Your task to perform on an android device: What is the news today? Image 0: 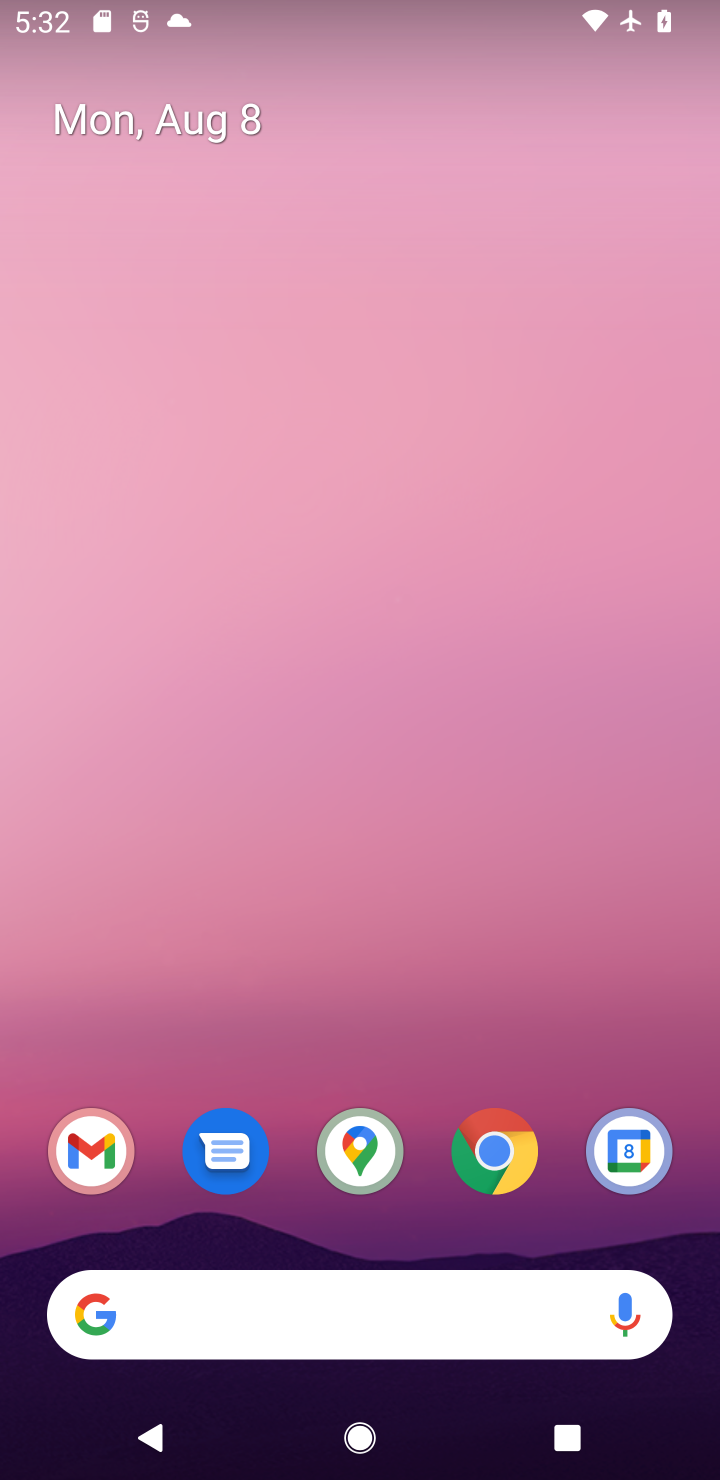
Step 0: drag from (374, 920) to (358, 293)
Your task to perform on an android device: What is the news today? Image 1: 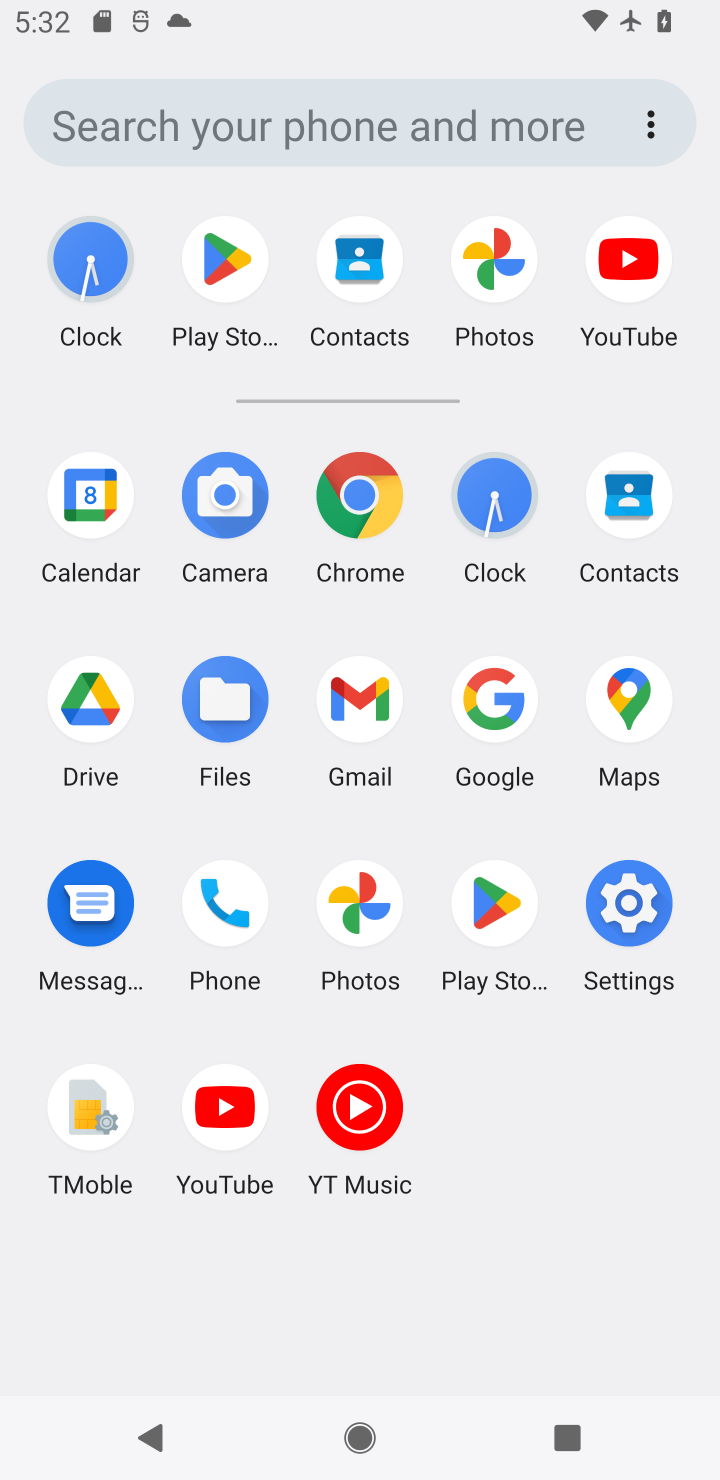
Step 1: click (478, 686)
Your task to perform on an android device: What is the news today? Image 2: 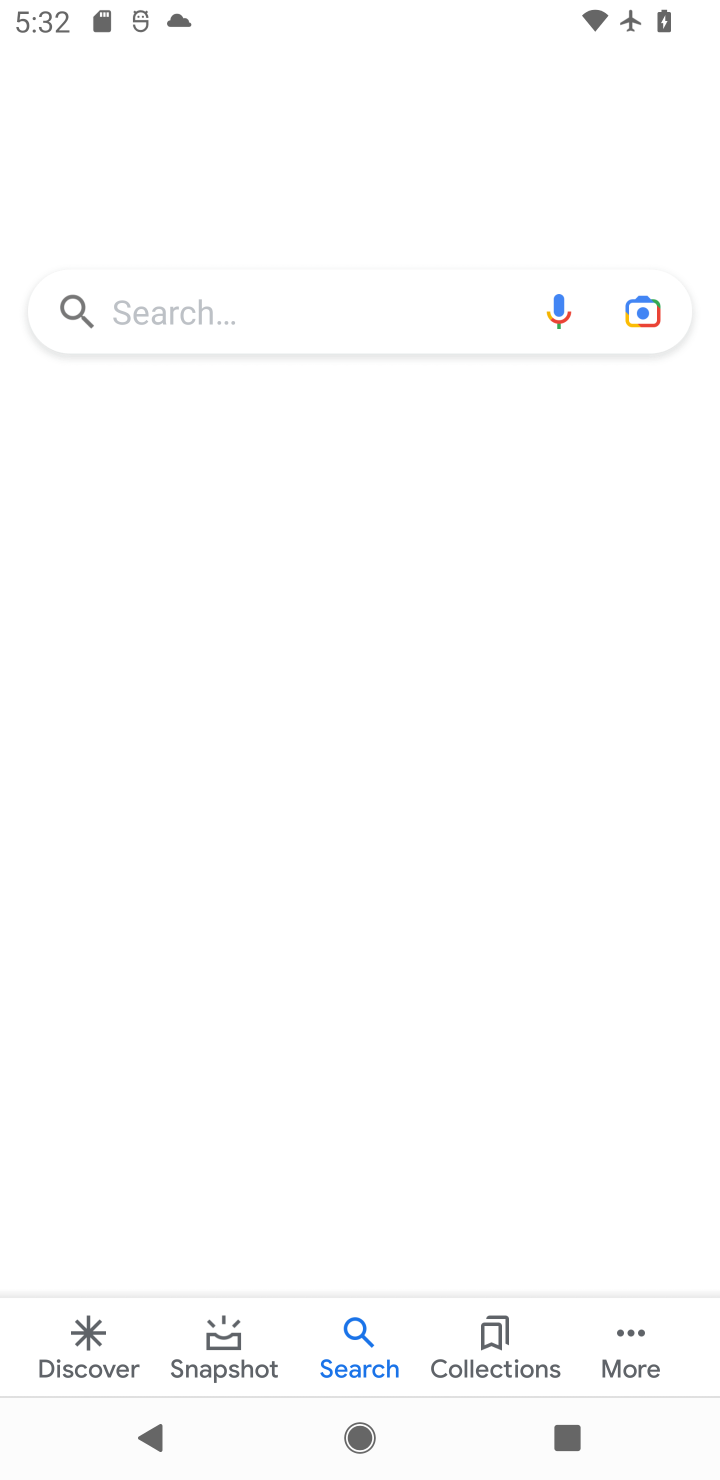
Step 2: click (217, 336)
Your task to perform on an android device: What is the news today? Image 3: 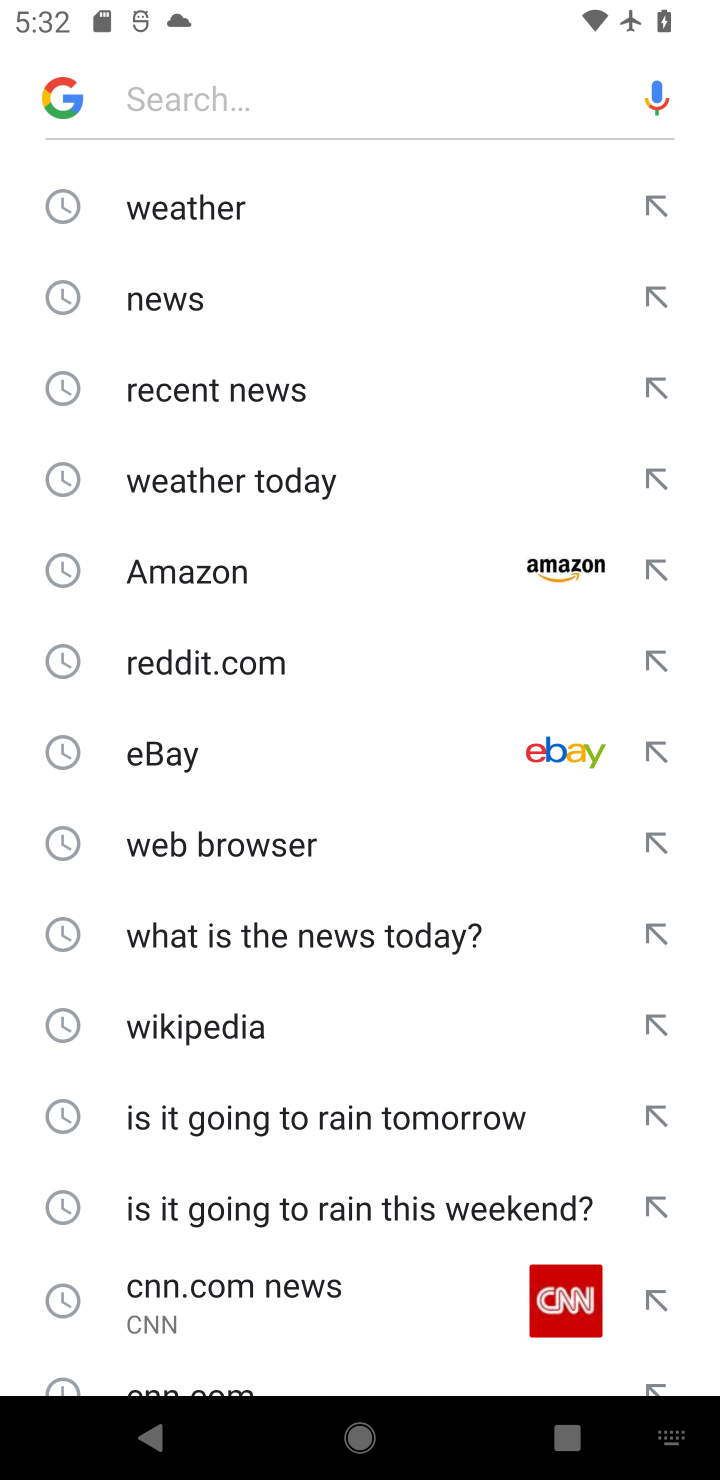
Step 3: click (209, 276)
Your task to perform on an android device: What is the news today? Image 4: 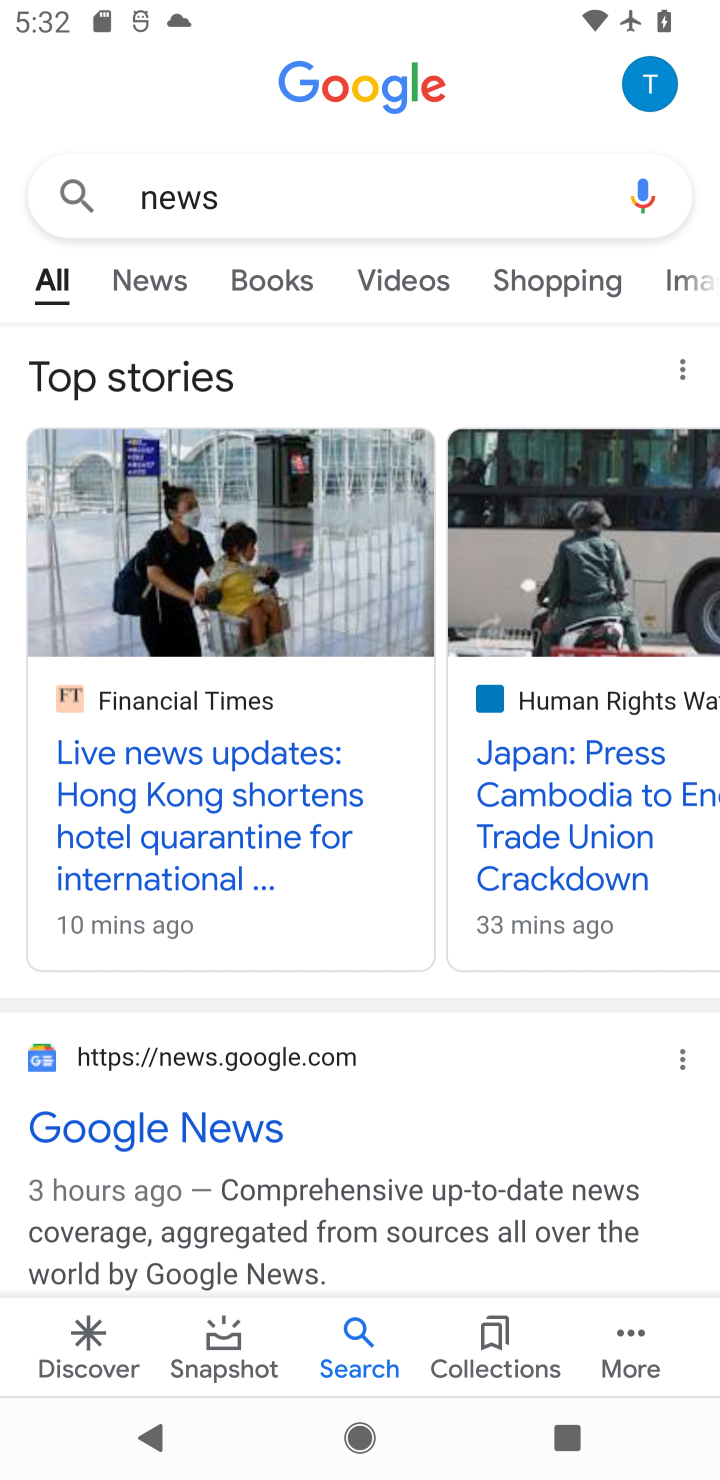
Step 4: click (155, 279)
Your task to perform on an android device: What is the news today? Image 5: 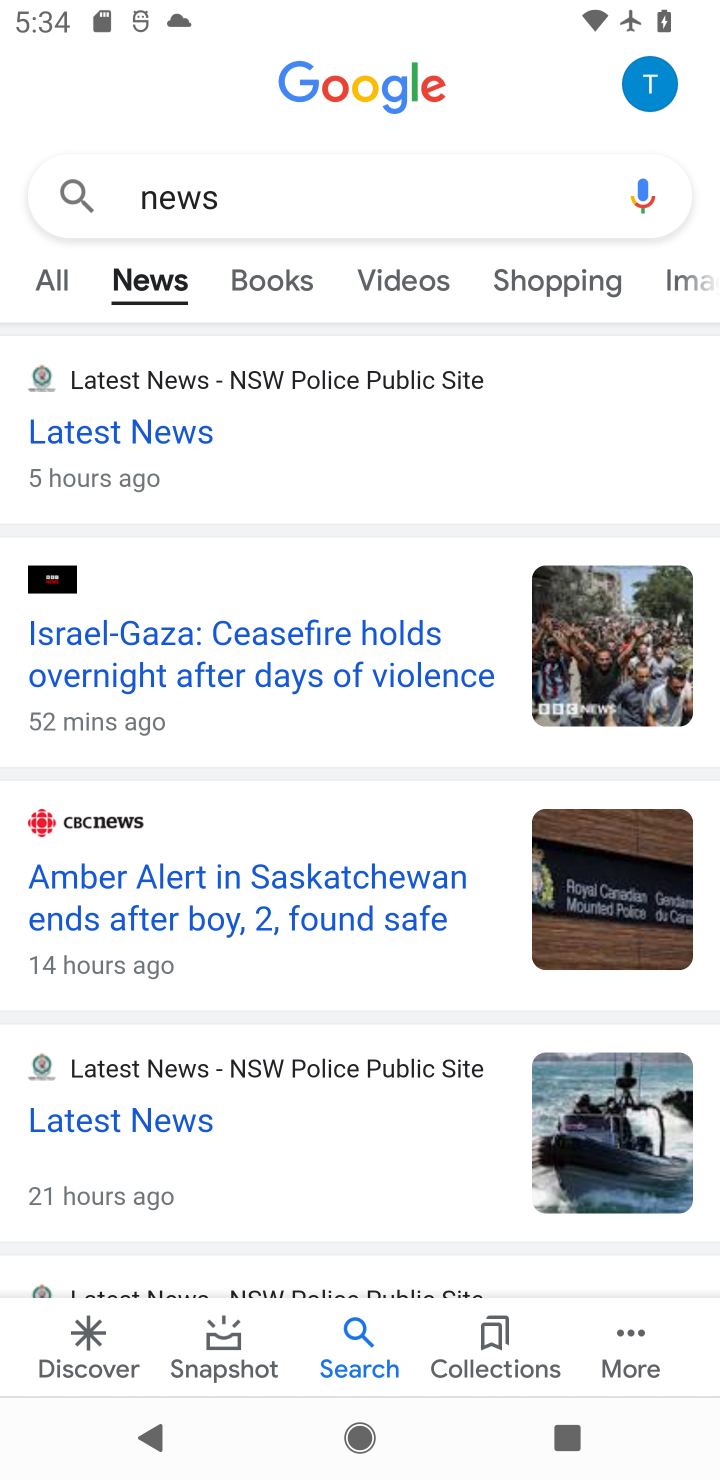
Step 5: task complete